Your task to perform on an android device: Open calendar and show me the third week of next month Image 0: 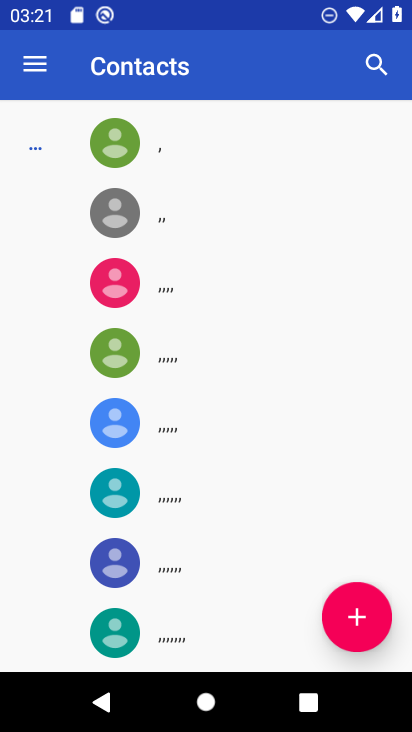
Step 0: press home button
Your task to perform on an android device: Open calendar and show me the third week of next month Image 1: 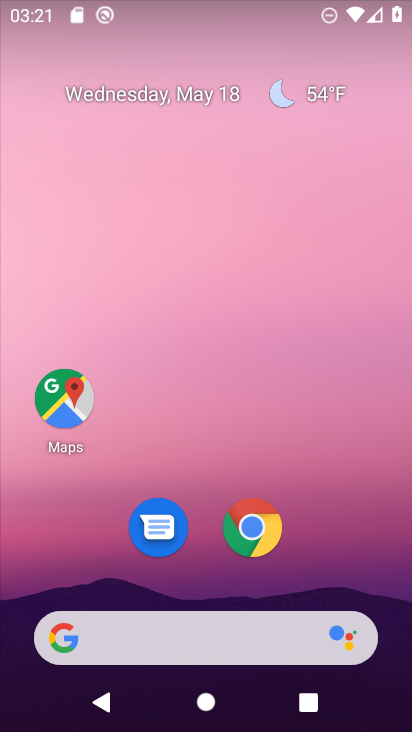
Step 1: drag from (231, 594) to (169, 8)
Your task to perform on an android device: Open calendar and show me the third week of next month Image 2: 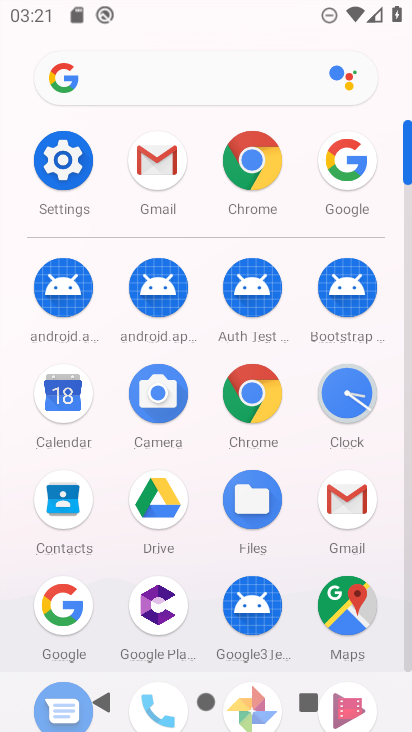
Step 2: click (64, 407)
Your task to perform on an android device: Open calendar and show me the third week of next month Image 3: 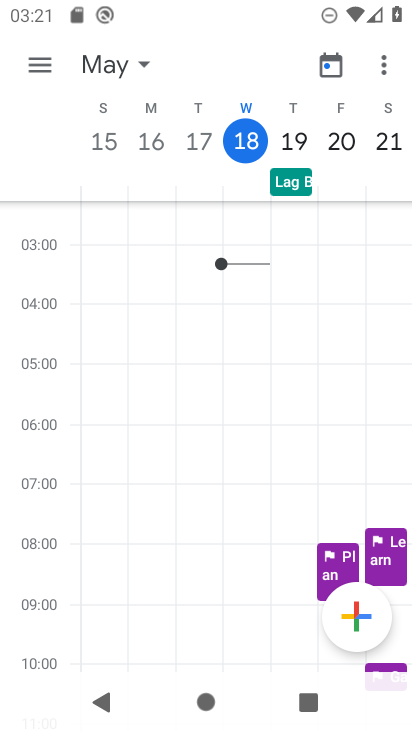
Step 3: task complete